Your task to perform on an android device: move a message to another label in the gmail app Image 0: 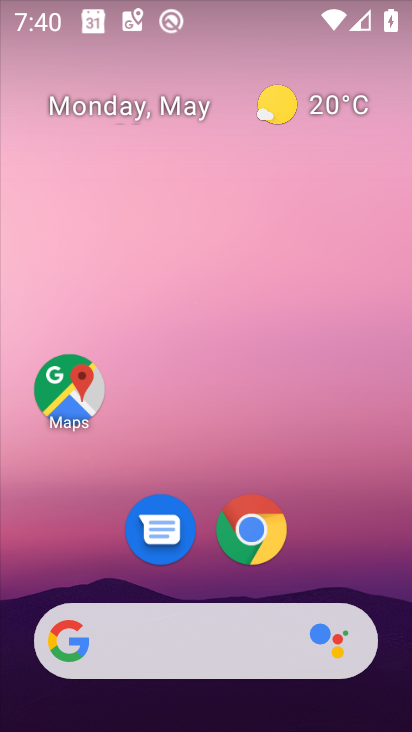
Step 0: drag from (20, 554) to (153, 116)
Your task to perform on an android device: move a message to another label in the gmail app Image 1: 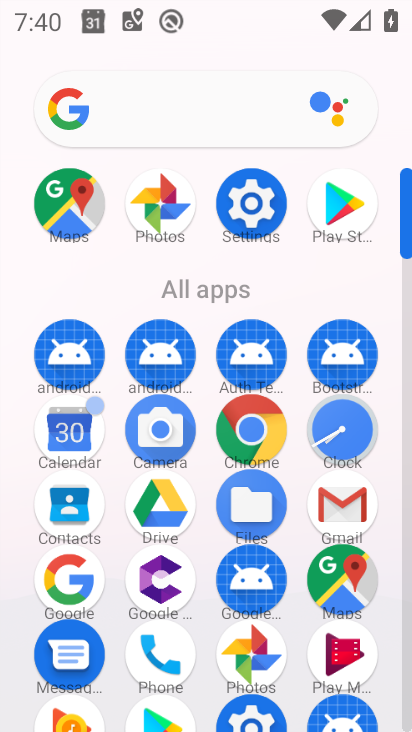
Step 1: click (337, 490)
Your task to perform on an android device: move a message to another label in the gmail app Image 2: 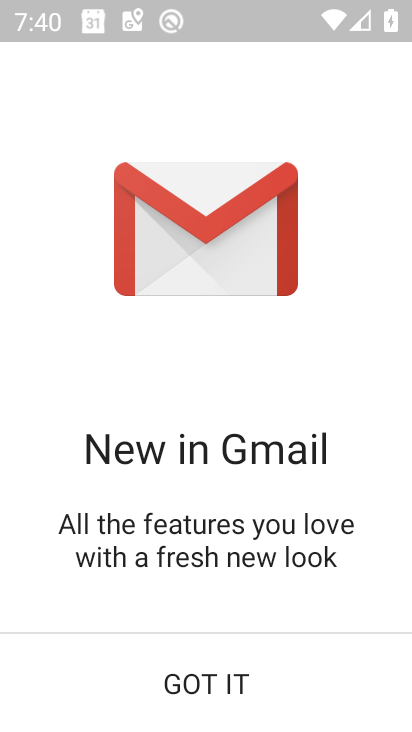
Step 2: click (165, 673)
Your task to perform on an android device: move a message to another label in the gmail app Image 3: 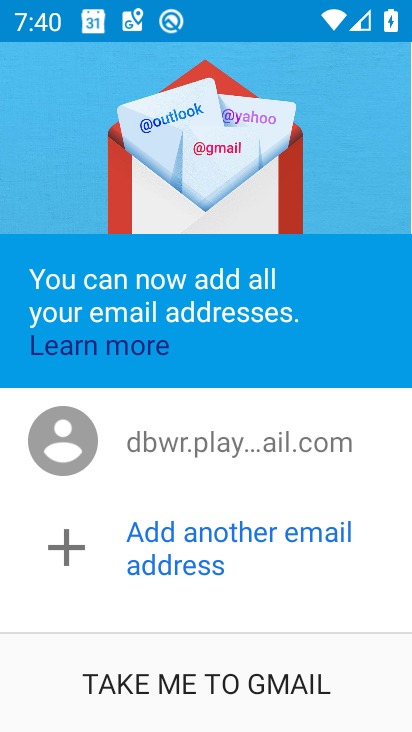
Step 3: click (236, 679)
Your task to perform on an android device: move a message to another label in the gmail app Image 4: 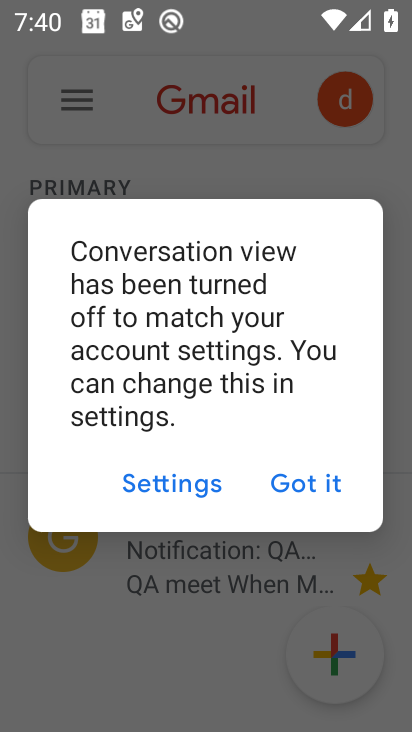
Step 4: click (324, 484)
Your task to perform on an android device: move a message to another label in the gmail app Image 5: 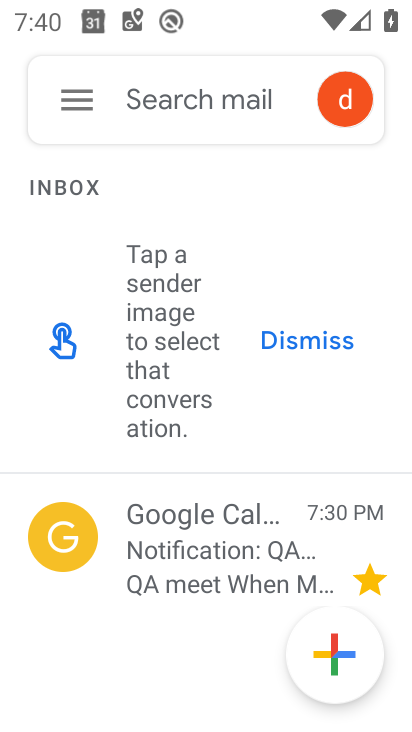
Step 5: click (154, 546)
Your task to perform on an android device: move a message to another label in the gmail app Image 6: 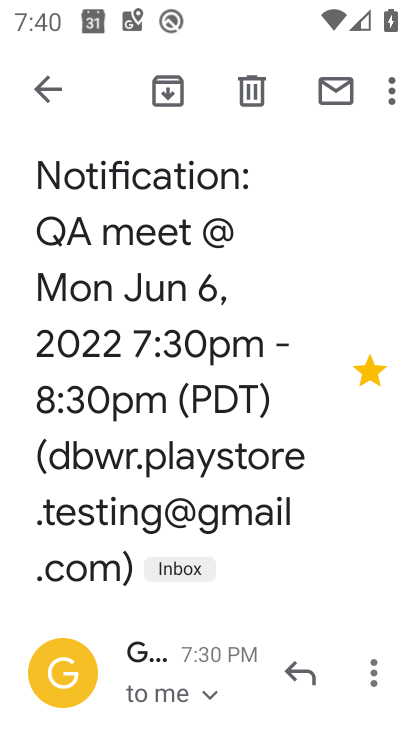
Step 6: click (386, 94)
Your task to perform on an android device: move a message to another label in the gmail app Image 7: 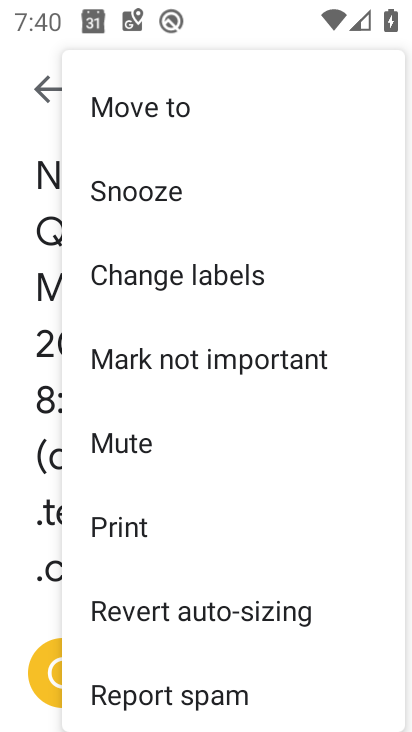
Step 7: click (136, 106)
Your task to perform on an android device: move a message to another label in the gmail app Image 8: 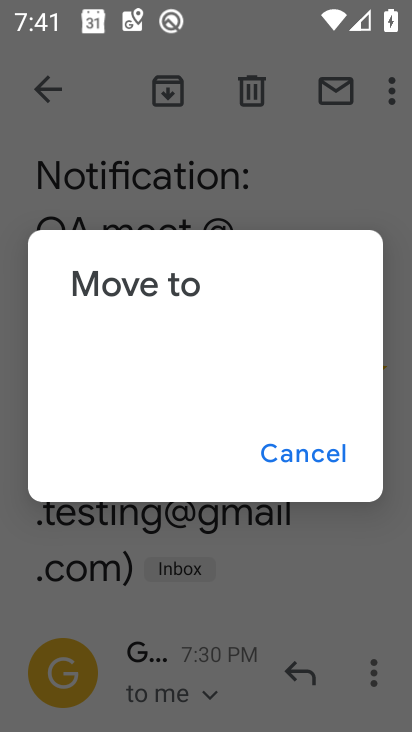
Step 8: task complete